Your task to perform on an android device: delete the emails in spam in the gmail app Image 0: 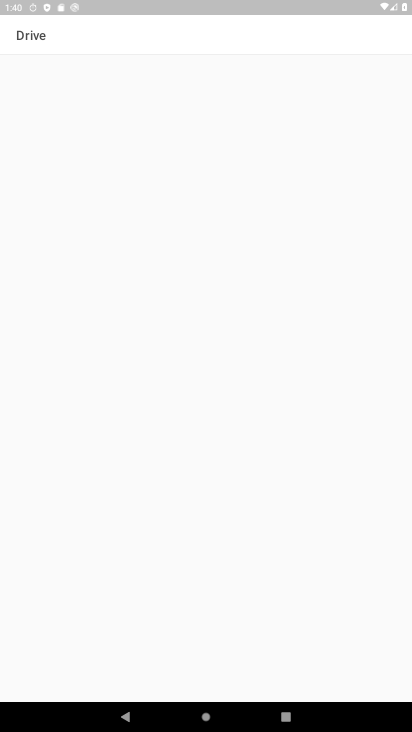
Step 0: press home button
Your task to perform on an android device: delete the emails in spam in the gmail app Image 1: 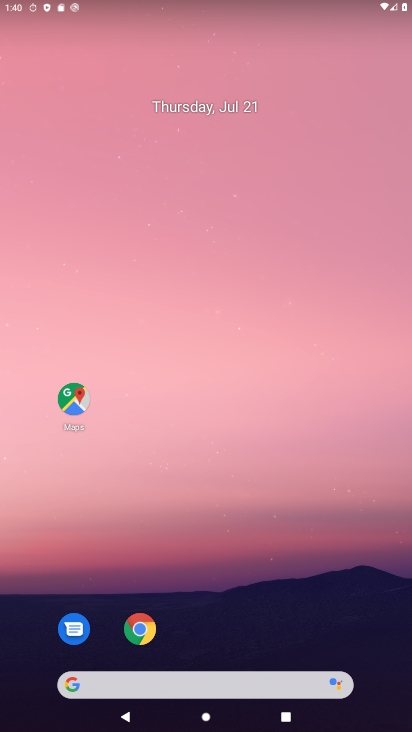
Step 1: drag from (36, 708) to (333, 147)
Your task to perform on an android device: delete the emails in spam in the gmail app Image 2: 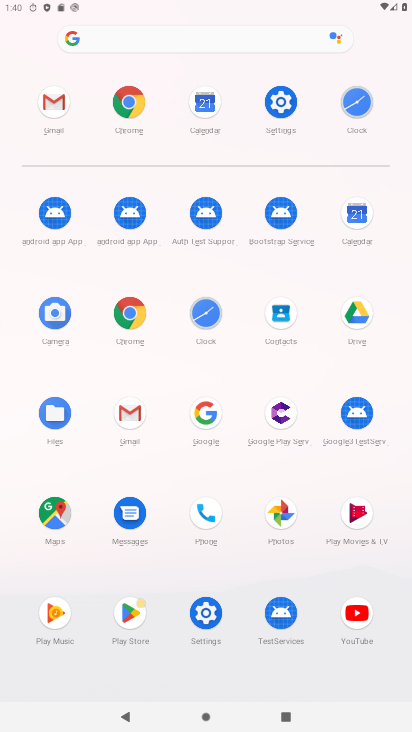
Step 2: click (125, 411)
Your task to perform on an android device: delete the emails in spam in the gmail app Image 3: 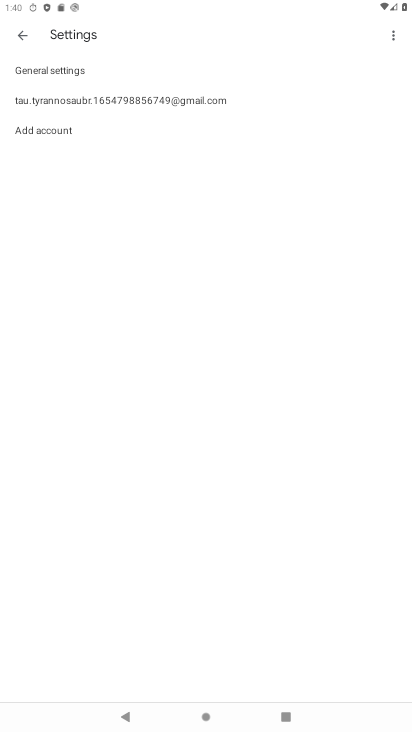
Step 3: click (27, 33)
Your task to perform on an android device: delete the emails in spam in the gmail app Image 4: 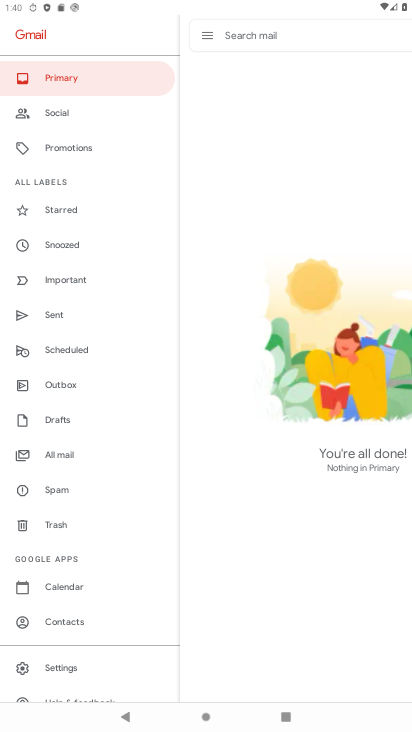
Step 4: click (66, 488)
Your task to perform on an android device: delete the emails in spam in the gmail app Image 5: 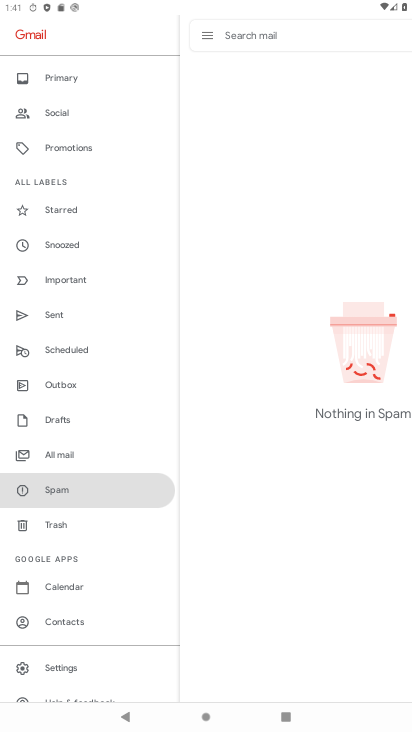
Step 5: task complete